Your task to perform on an android device: toggle improve location accuracy Image 0: 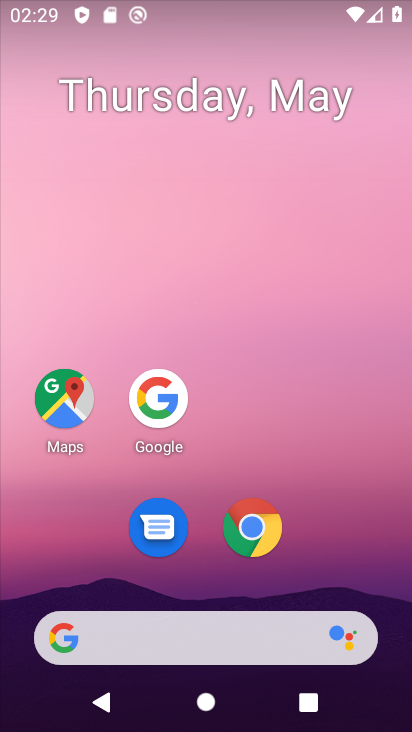
Step 0: drag from (243, 606) to (240, 68)
Your task to perform on an android device: toggle improve location accuracy Image 1: 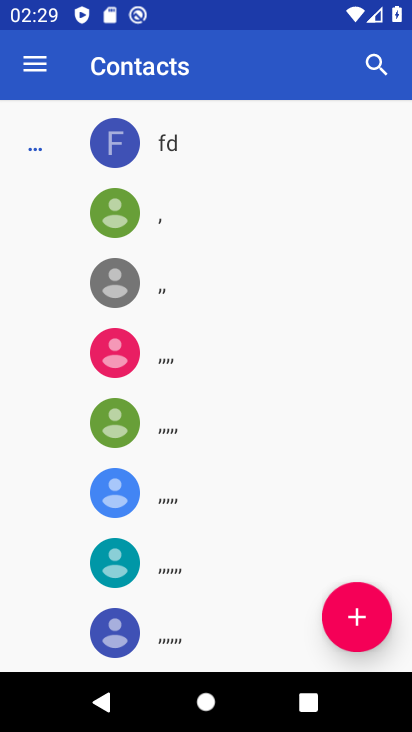
Step 1: press home button
Your task to perform on an android device: toggle improve location accuracy Image 2: 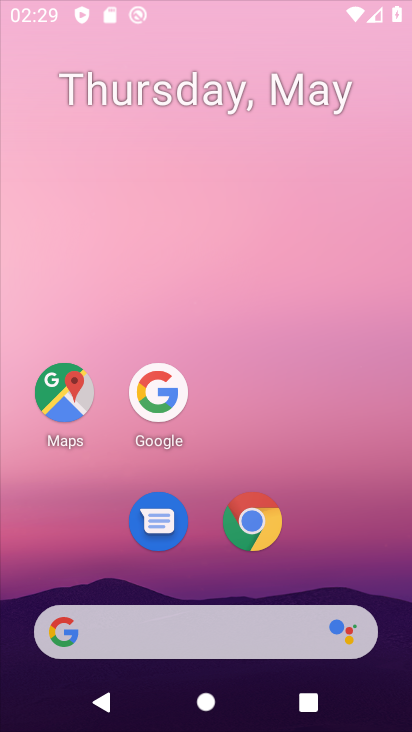
Step 2: drag from (192, 525) to (224, 123)
Your task to perform on an android device: toggle improve location accuracy Image 3: 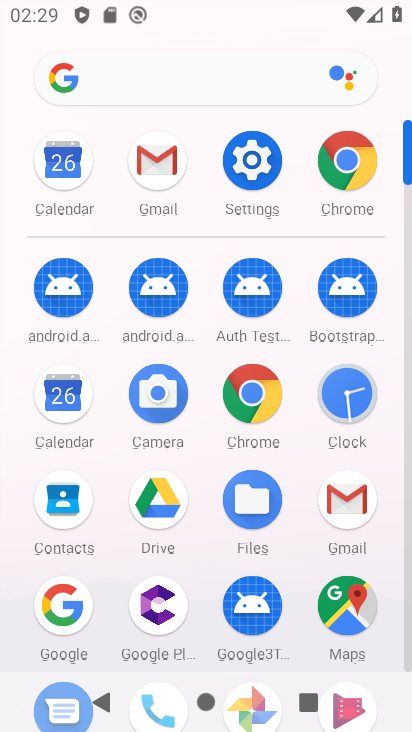
Step 3: click (238, 168)
Your task to perform on an android device: toggle improve location accuracy Image 4: 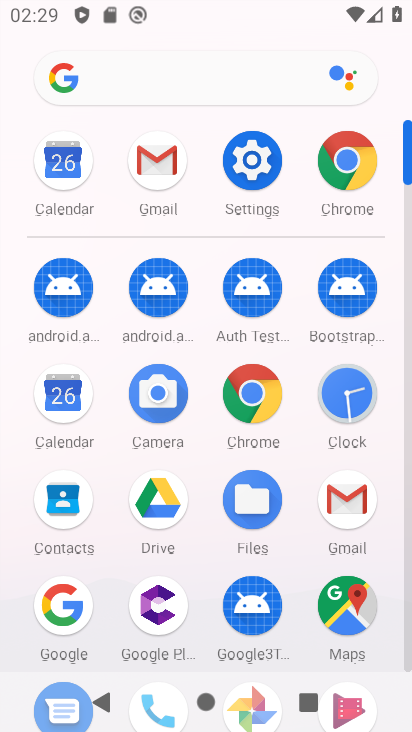
Step 4: click (238, 168)
Your task to perform on an android device: toggle improve location accuracy Image 5: 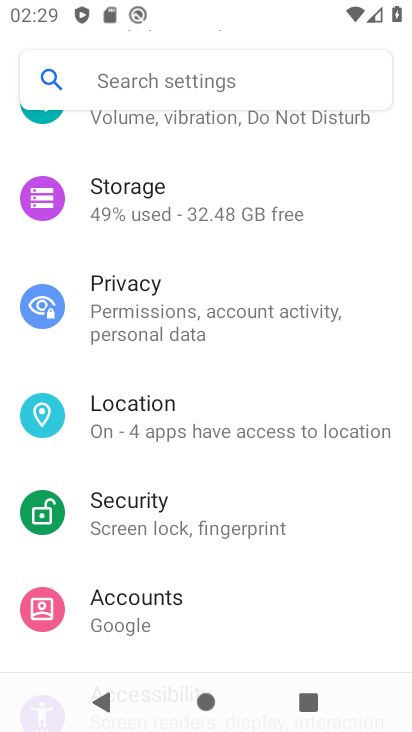
Step 5: click (169, 420)
Your task to perform on an android device: toggle improve location accuracy Image 6: 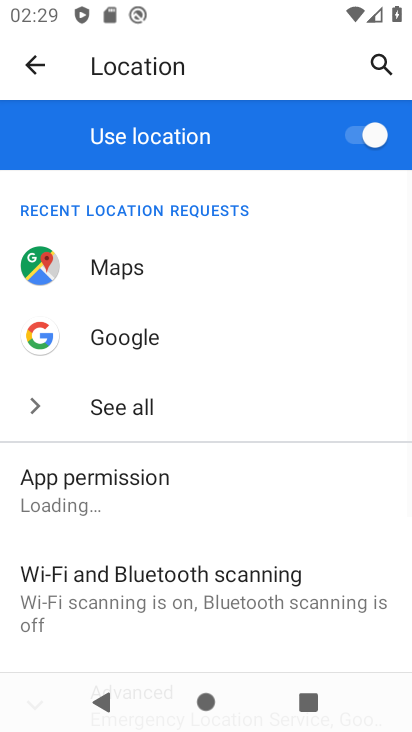
Step 6: drag from (214, 439) to (233, 231)
Your task to perform on an android device: toggle improve location accuracy Image 7: 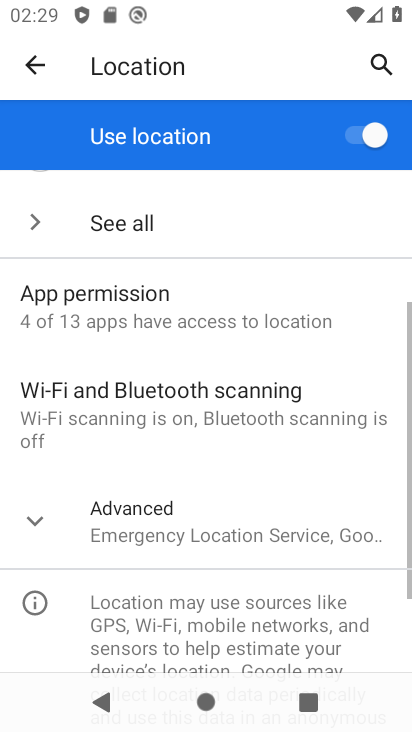
Step 7: drag from (230, 540) to (249, 341)
Your task to perform on an android device: toggle improve location accuracy Image 8: 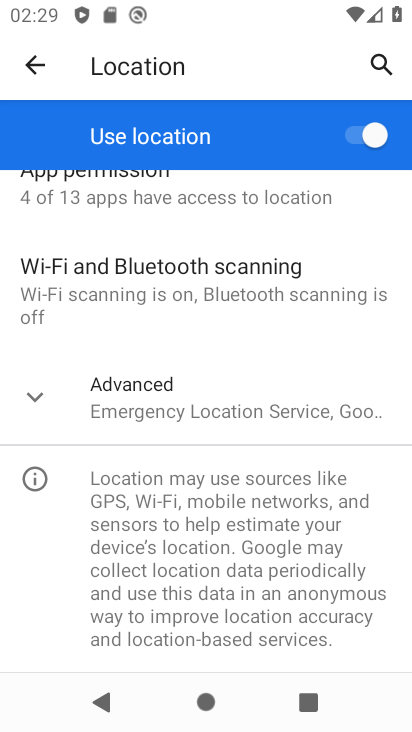
Step 8: click (171, 407)
Your task to perform on an android device: toggle improve location accuracy Image 9: 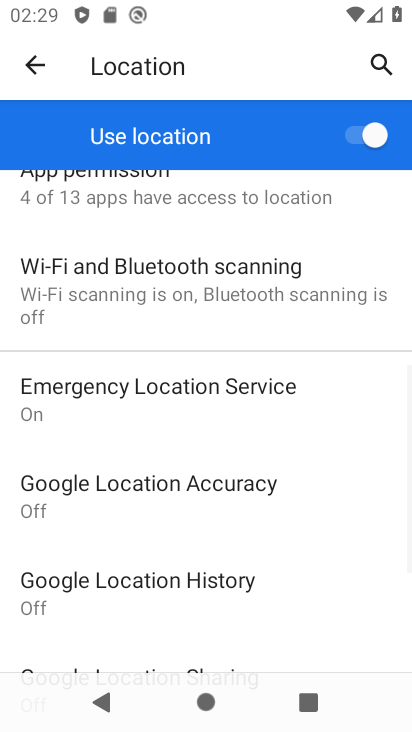
Step 9: drag from (250, 575) to (286, 374)
Your task to perform on an android device: toggle improve location accuracy Image 10: 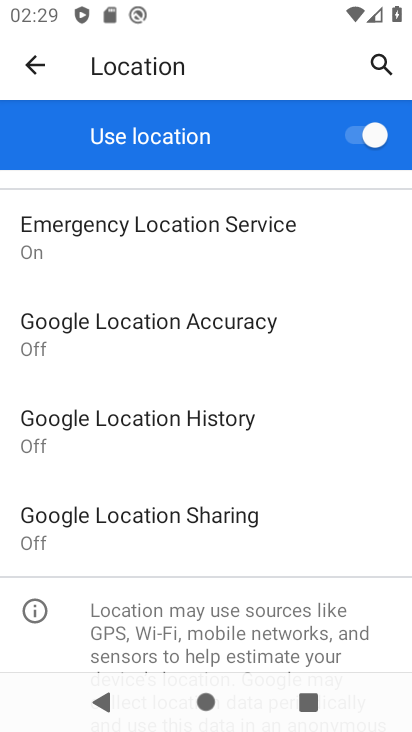
Step 10: click (116, 354)
Your task to perform on an android device: toggle improve location accuracy Image 11: 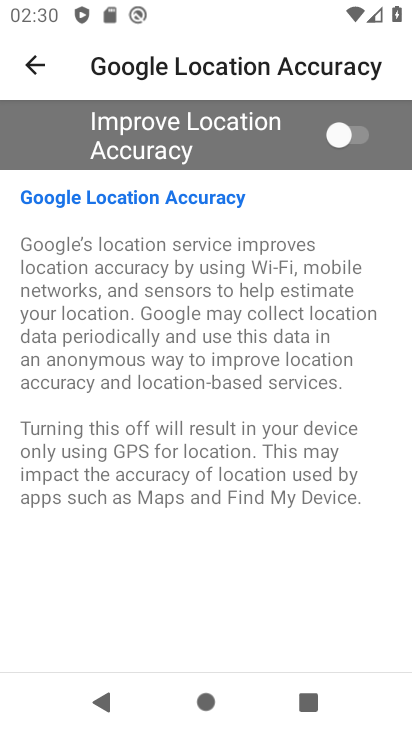
Step 11: click (348, 131)
Your task to perform on an android device: toggle improve location accuracy Image 12: 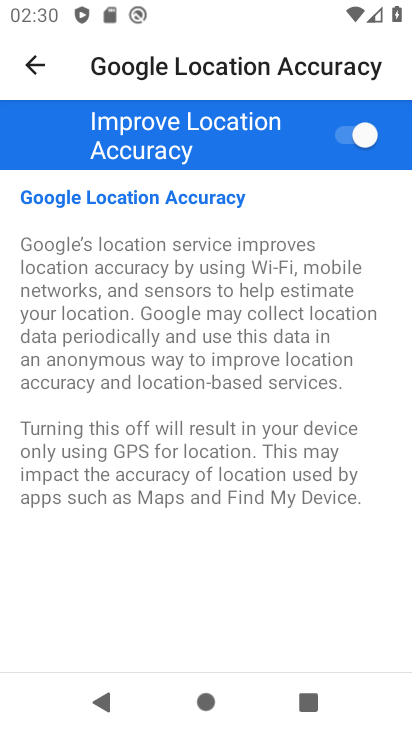
Step 12: task complete